Your task to perform on an android device: turn on translation in the chrome app Image 0: 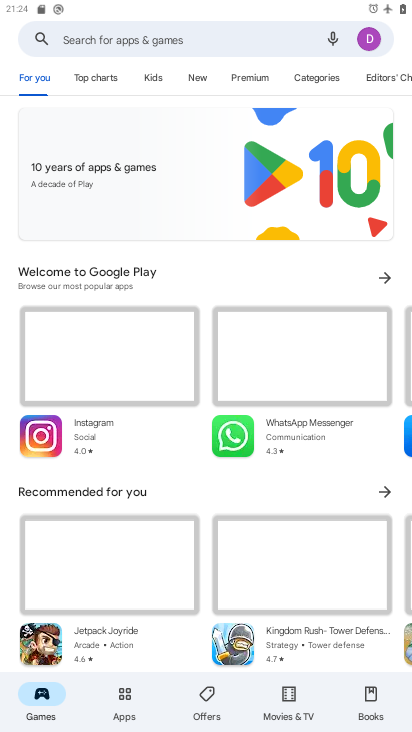
Step 0: press home button
Your task to perform on an android device: turn on translation in the chrome app Image 1: 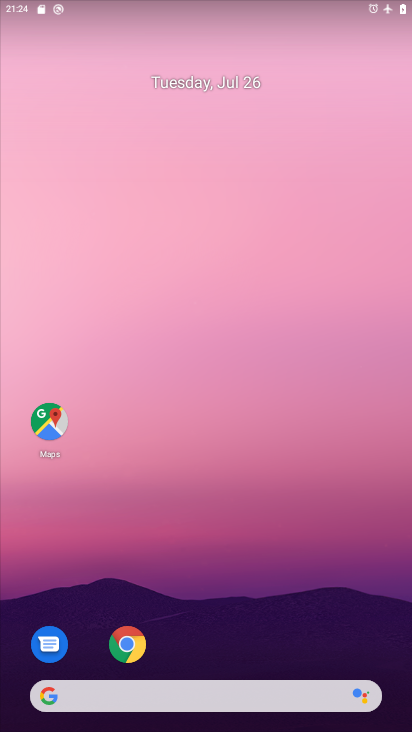
Step 1: click (130, 652)
Your task to perform on an android device: turn on translation in the chrome app Image 2: 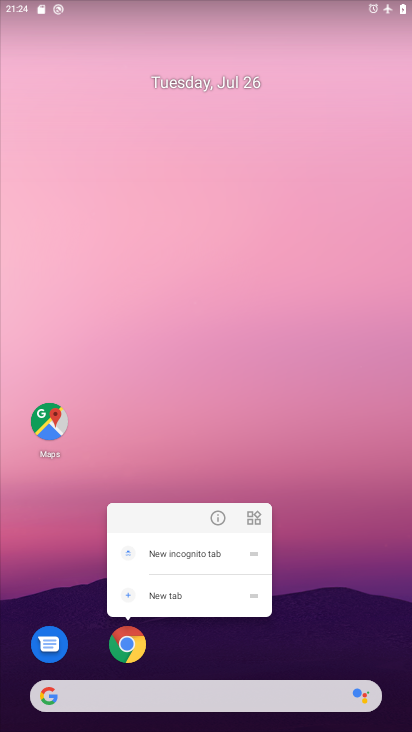
Step 2: click (132, 644)
Your task to perform on an android device: turn on translation in the chrome app Image 3: 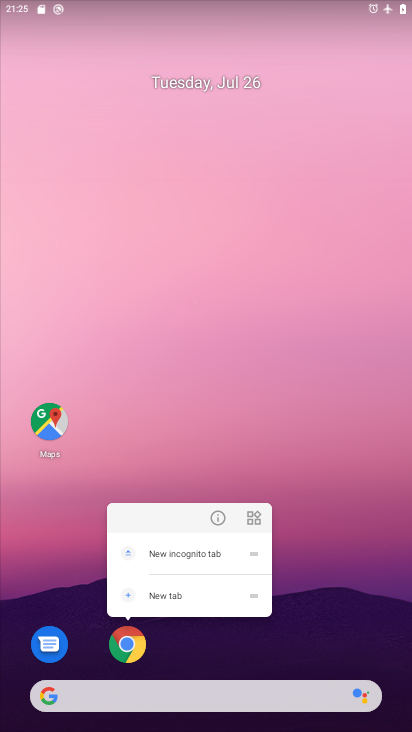
Step 3: click (132, 644)
Your task to perform on an android device: turn on translation in the chrome app Image 4: 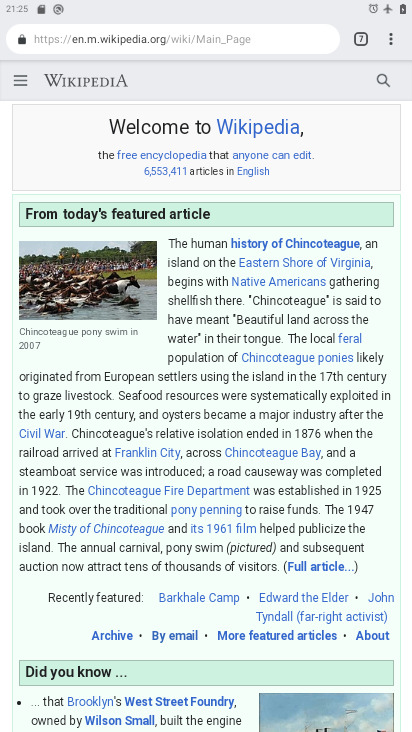
Step 4: click (396, 27)
Your task to perform on an android device: turn on translation in the chrome app Image 5: 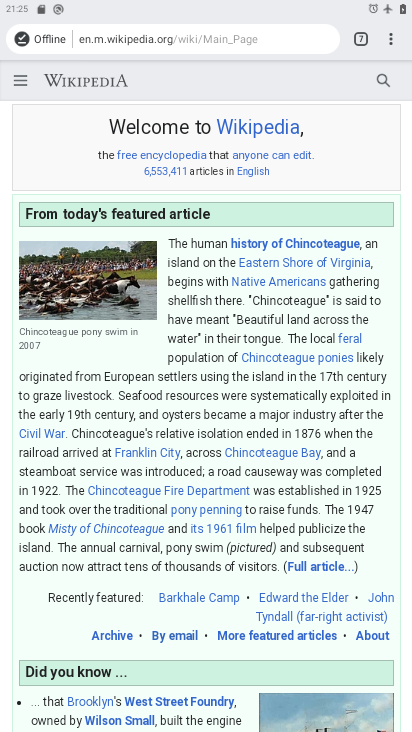
Step 5: click (396, 38)
Your task to perform on an android device: turn on translation in the chrome app Image 6: 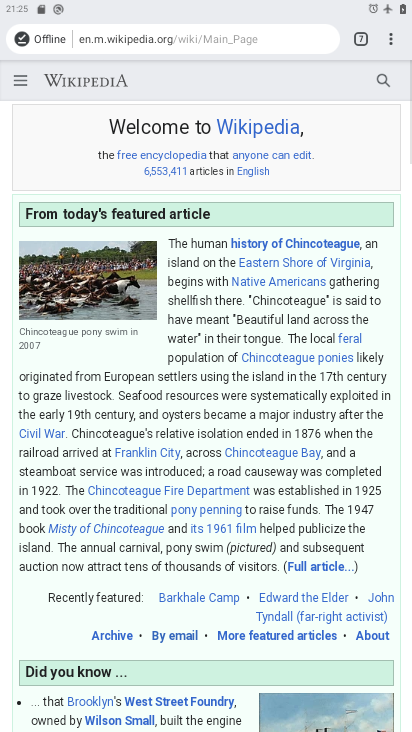
Step 6: click (396, 38)
Your task to perform on an android device: turn on translation in the chrome app Image 7: 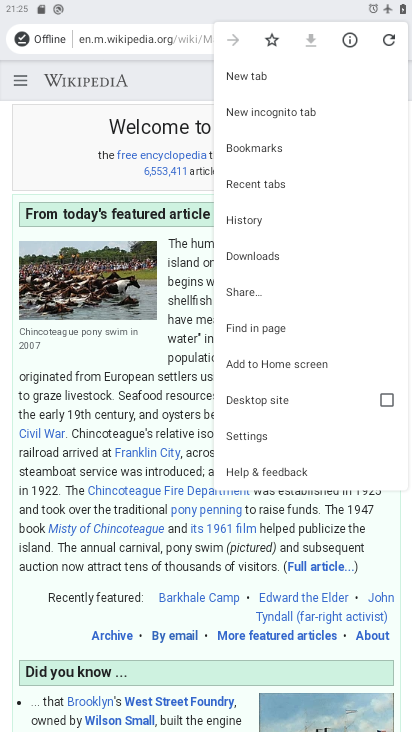
Step 7: drag from (279, 423) to (248, 438)
Your task to perform on an android device: turn on translation in the chrome app Image 8: 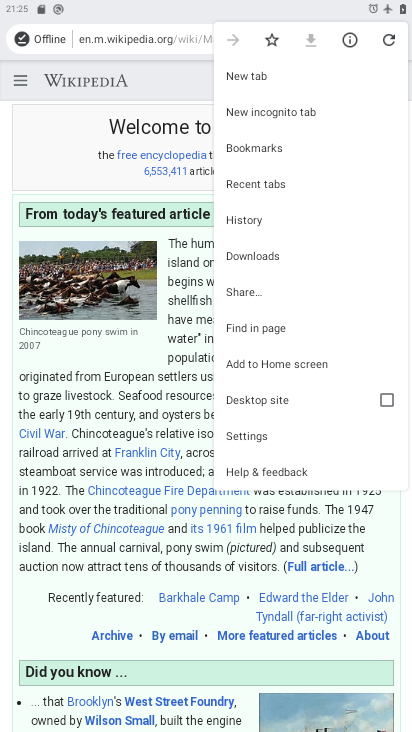
Step 8: click (290, 440)
Your task to perform on an android device: turn on translation in the chrome app Image 9: 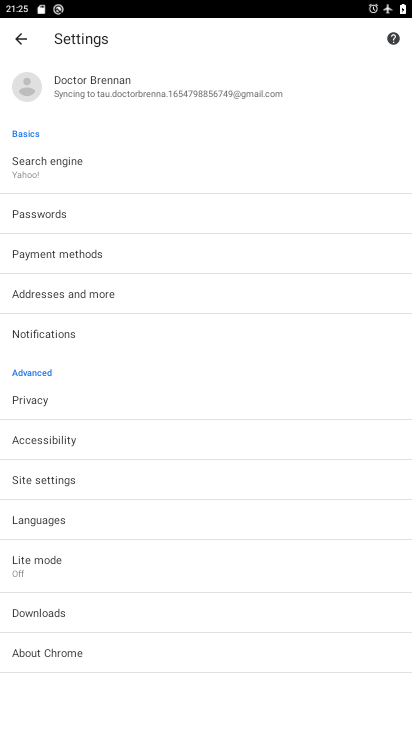
Step 9: click (126, 516)
Your task to perform on an android device: turn on translation in the chrome app Image 10: 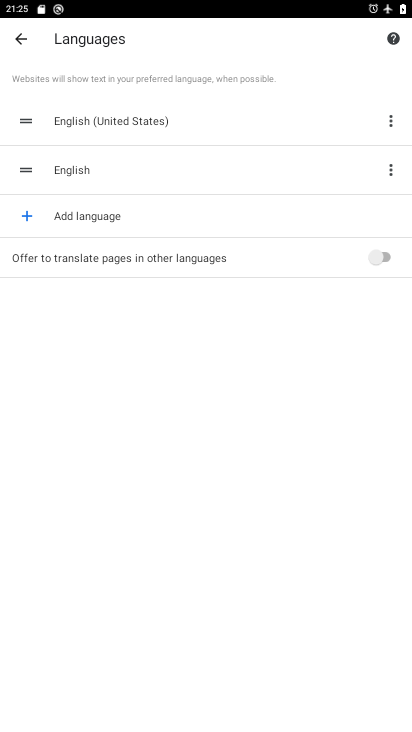
Step 10: click (381, 255)
Your task to perform on an android device: turn on translation in the chrome app Image 11: 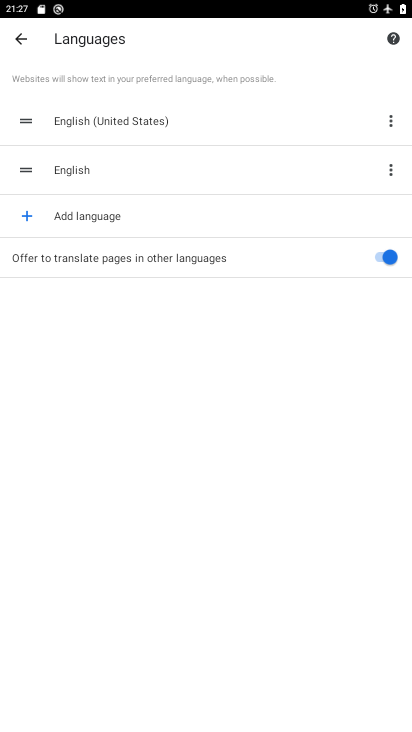
Step 11: task complete